Your task to perform on an android device: Open Reddit.com Image 0: 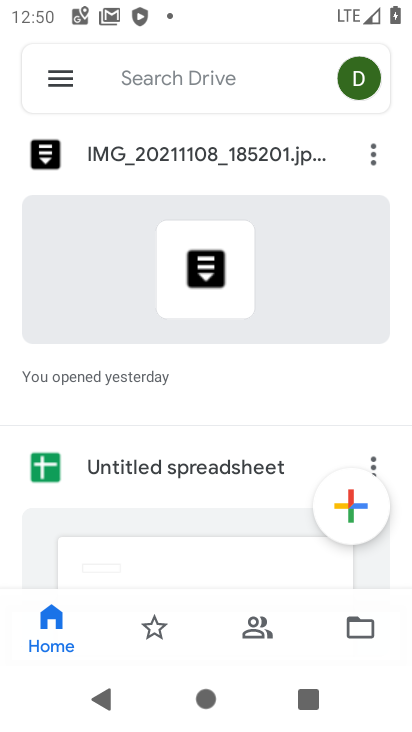
Step 0: press home button
Your task to perform on an android device: Open Reddit.com Image 1: 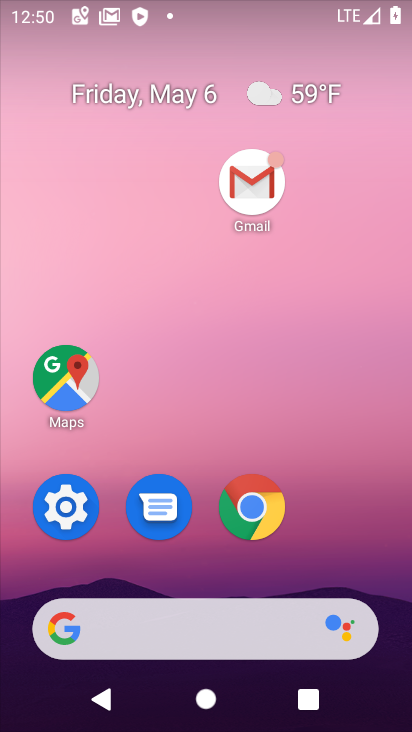
Step 1: click (250, 514)
Your task to perform on an android device: Open Reddit.com Image 2: 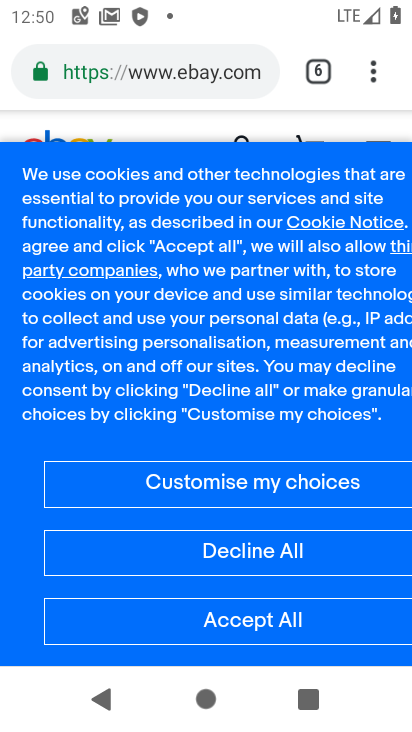
Step 2: click (372, 66)
Your task to perform on an android device: Open Reddit.com Image 3: 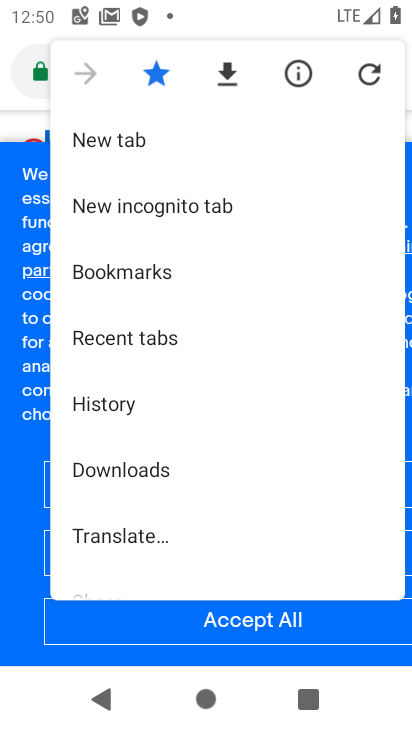
Step 3: click (129, 137)
Your task to perform on an android device: Open Reddit.com Image 4: 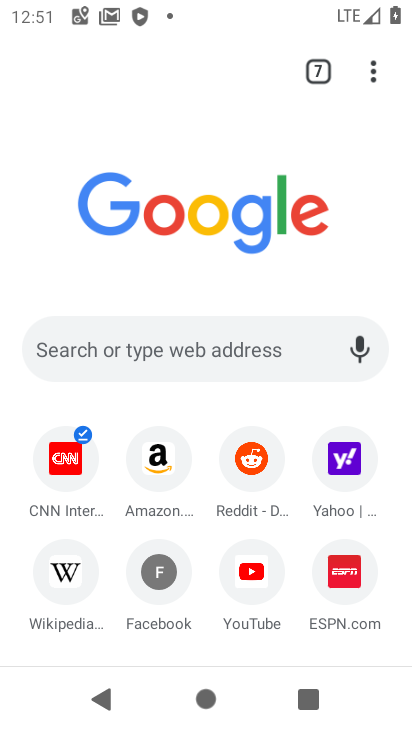
Step 4: click (249, 489)
Your task to perform on an android device: Open Reddit.com Image 5: 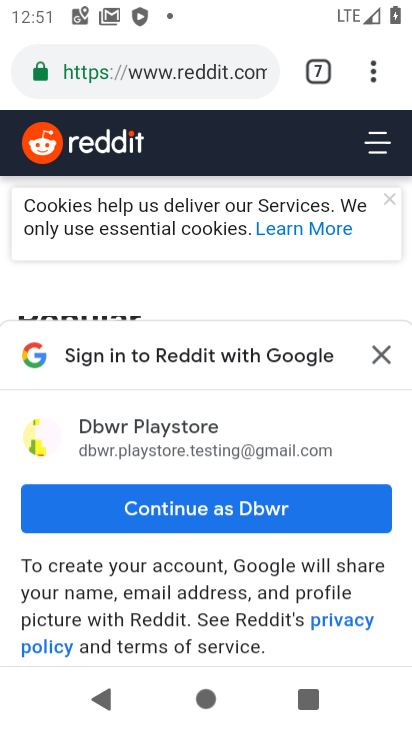
Step 5: task complete